Your task to perform on an android device: Clear the shopping cart on ebay.com. Search for razer deathadder on ebay.com, select the first entry, add it to the cart, then select checkout. Image 0: 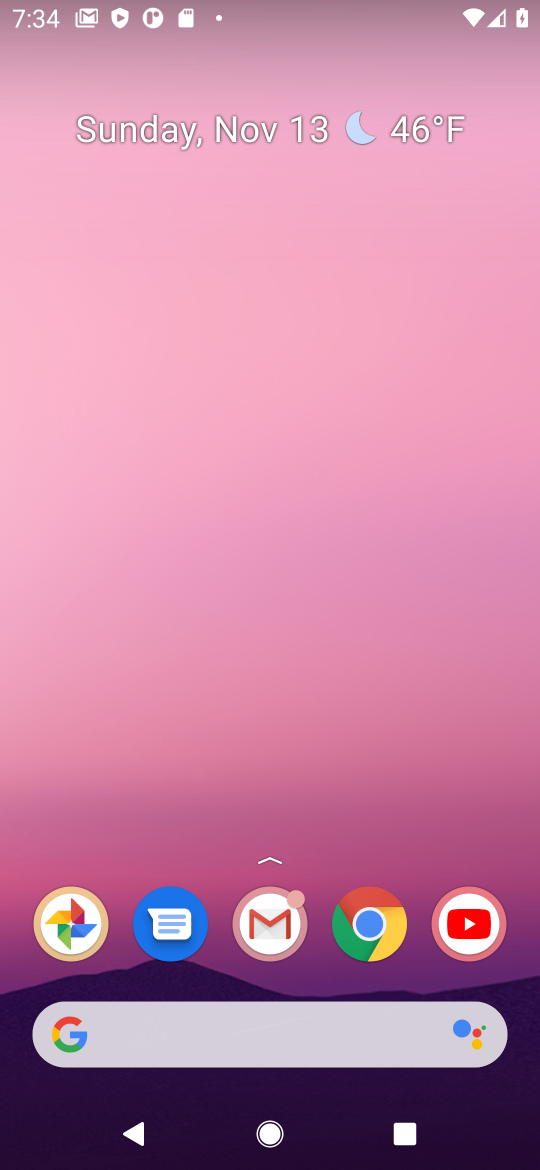
Step 0: click (373, 920)
Your task to perform on an android device: Clear the shopping cart on ebay.com. Search for razer deathadder on ebay.com, select the first entry, add it to the cart, then select checkout. Image 1: 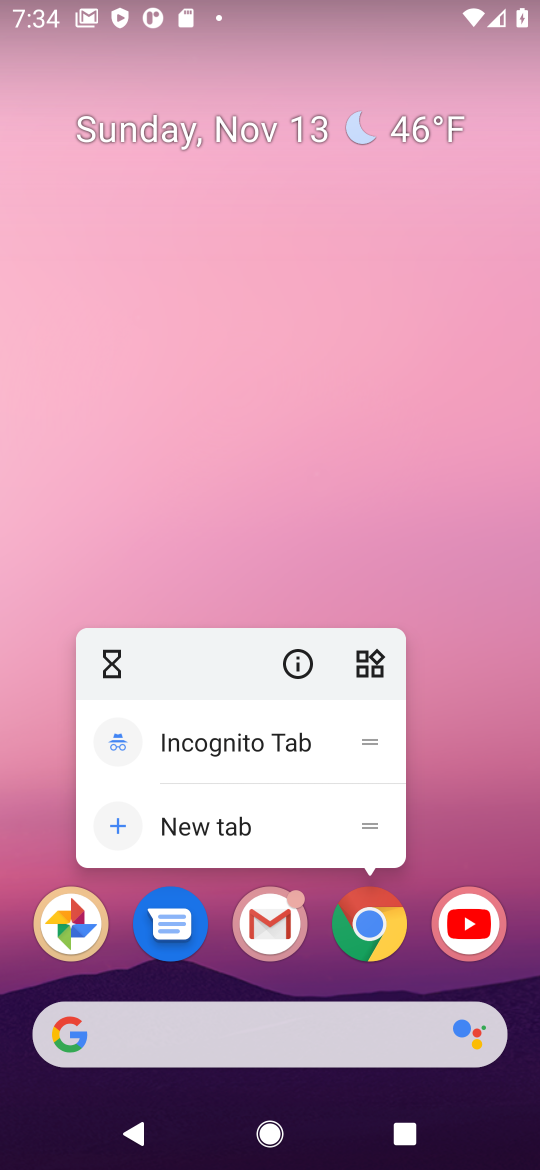
Step 1: click (360, 935)
Your task to perform on an android device: Clear the shopping cart on ebay.com. Search for razer deathadder on ebay.com, select the first entry, add it to the cart, then select checkout. Image 2: 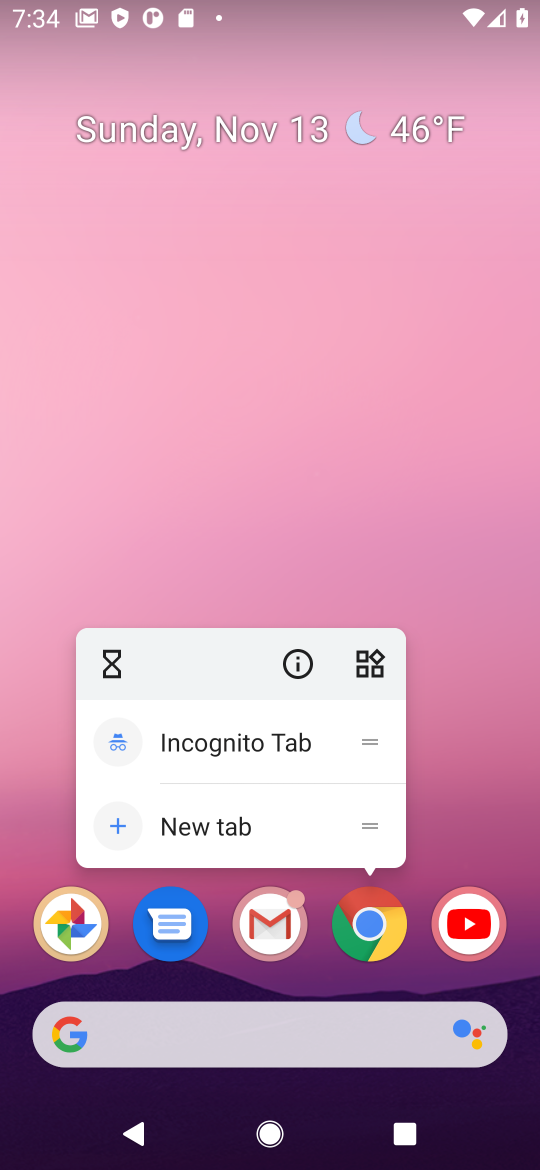
Step 2: click (360, 939)
Your task to perform on an android device: Clear the shopping cart on ebay.com. Search for razer deathadder on ebay.com, select the first entry, add it to the cart, then select checkout. Image 3: 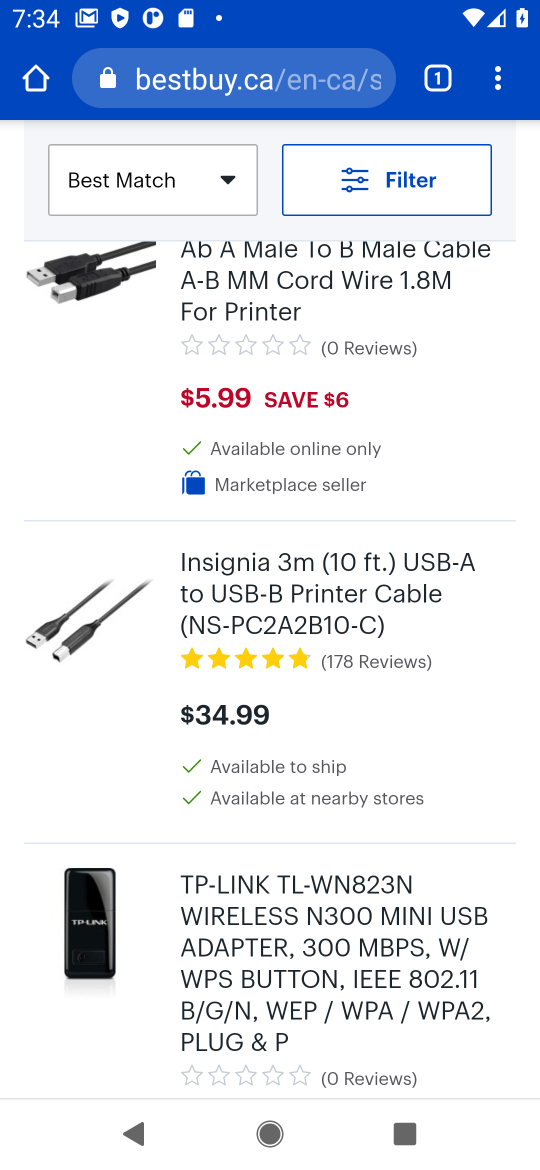
Step 3: click (307, 84)
Your task to perform on an android device: Clear the shopping cart on ebay.com. Search for razer deathadder on ebay.com, select the first entry, add it to the cart, then select checkout. Image 4: 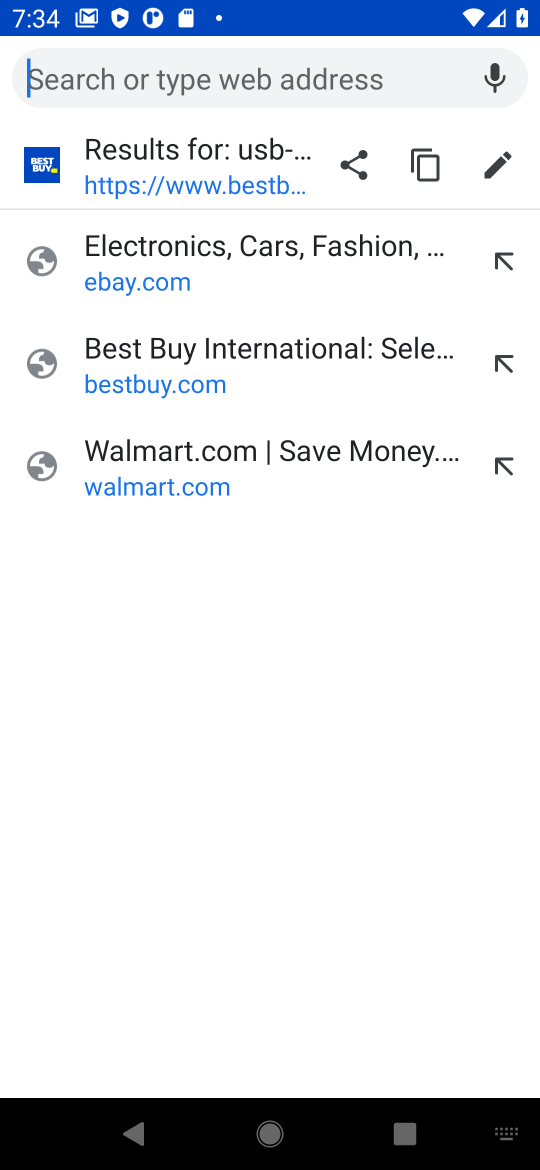
Step 4: type "ebay.com"
Your task to perform on an android device: Clear the shopping cart on ebay.com. Search for razer deathadder on ebay.com, select the first entry, add it to the cart, then select checkout. Image 5: 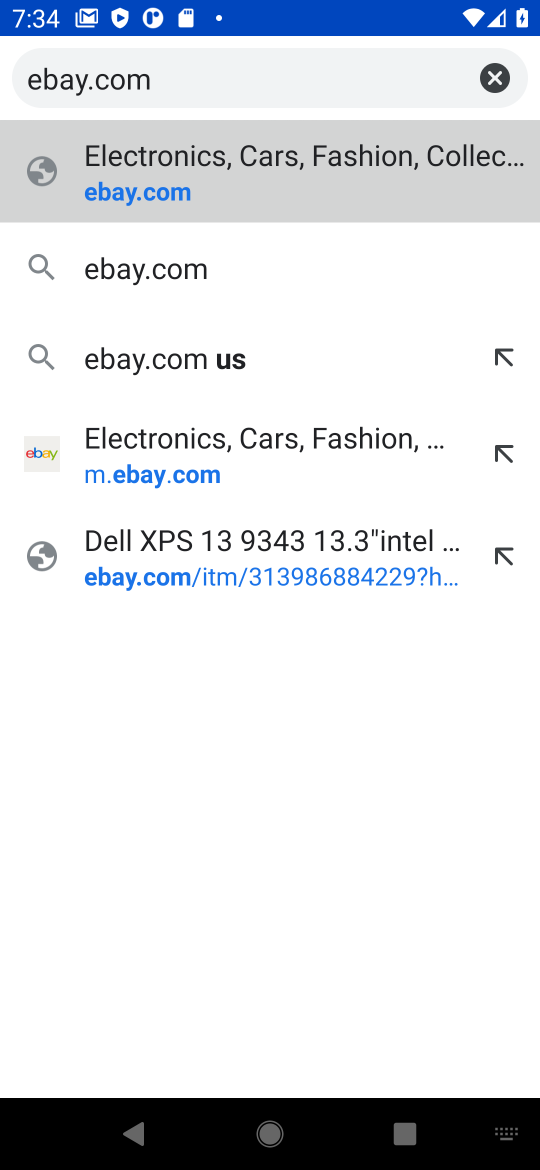
Step 5: press enter
Your task to perform on an android device: Clear the shopping cart on ebay.com. Search for razer deathadder on ebay.com, select the first entry, add it to the cart, then select checkout. Image 6: 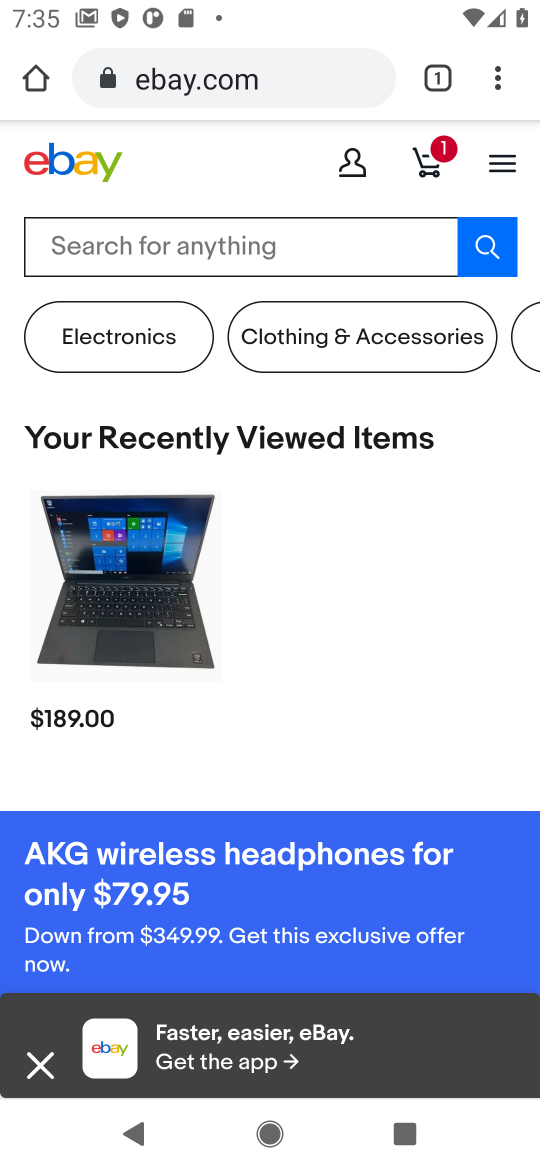
Step 6: click (252, 242)
Your task to perform on an android device: Clear the shopping cart on ebay.com. Search for razer deathadder on ebay.com, select the first entry, add it to the cart, then select checkout. Image 7: 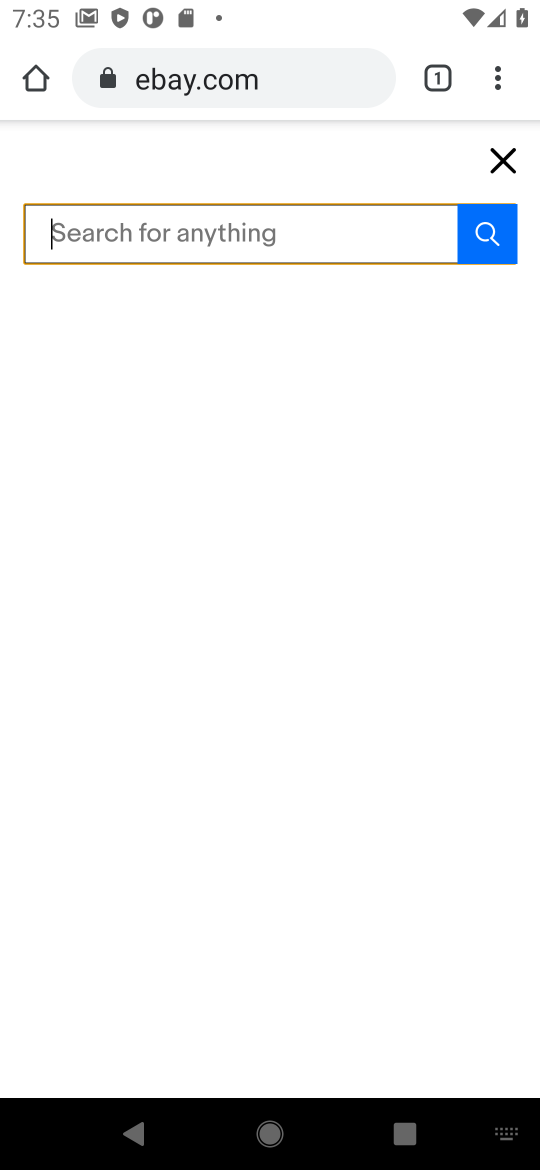
Step 7: type " razer deathadder"
Your task to perform on an android device: Clear the shopping cart on ebay.com. Search for razer deathadder on ebay.com, select the first entry, add it to the cart, then select checkout. Image 8: 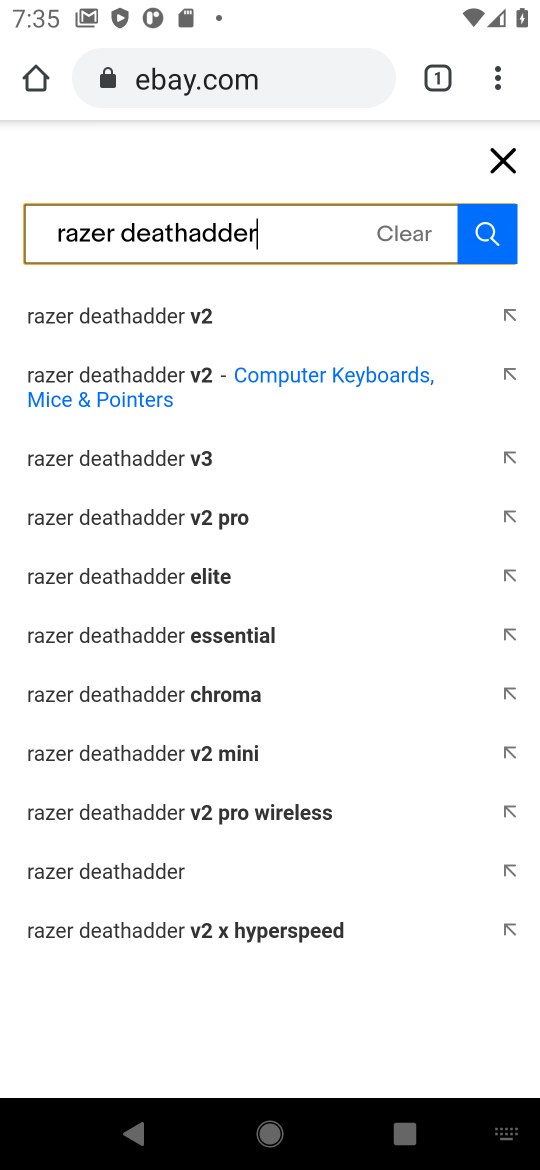
Step 8: press enter
Your task to perform on an android device: Clear the shopping cart on ebay.com. Search for razer deathadder on ebay.com, select the first entry, add it to the cart, then select checkout. Image 9: 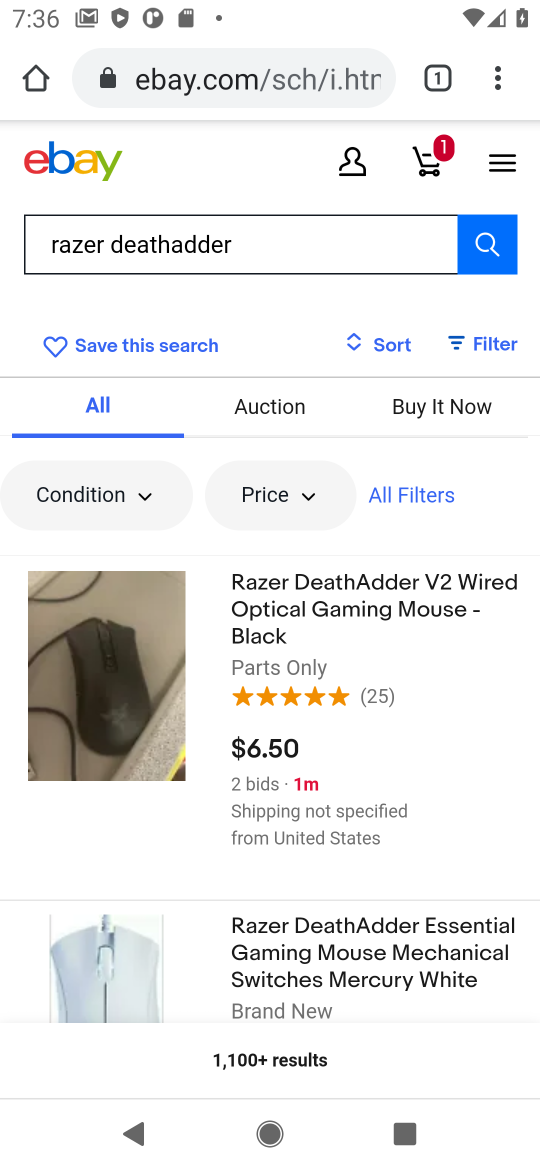
Step 9: click (376, 618)
Your task to perform on an android device: Clear the shopping cart on ebay.com. Search for razer deathadder on ebay.com, select the first entry, add it to the cart, then select checkout. Image 10: 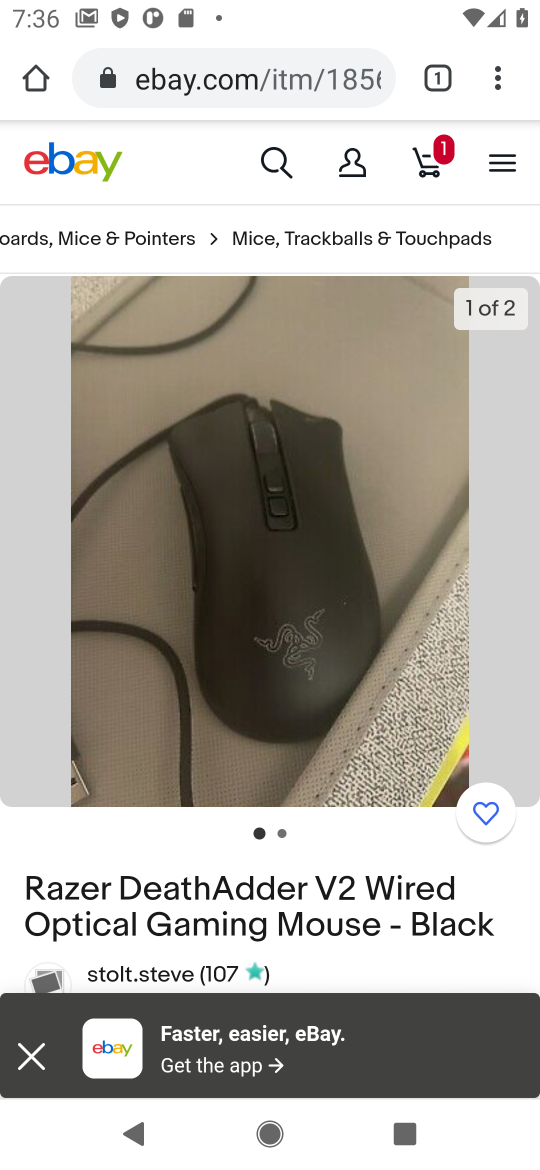
Step 10: task complete